Your task to perform on an android device: Open Amazon Image 0: 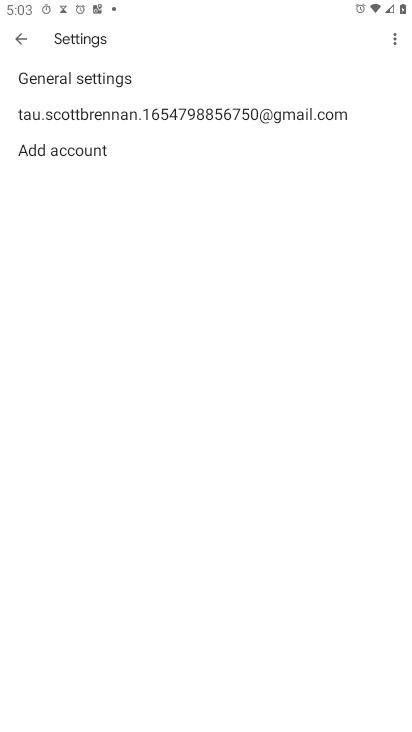
Step 0: press home button
Your task to perform on an android device: Open Amazon Image 1: 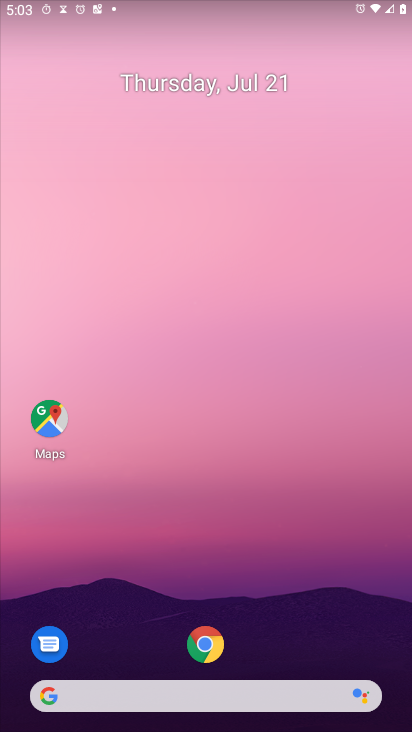
Step 1: click (43, 693)
Your task to perform on an android device: Open Amazon Image 2: 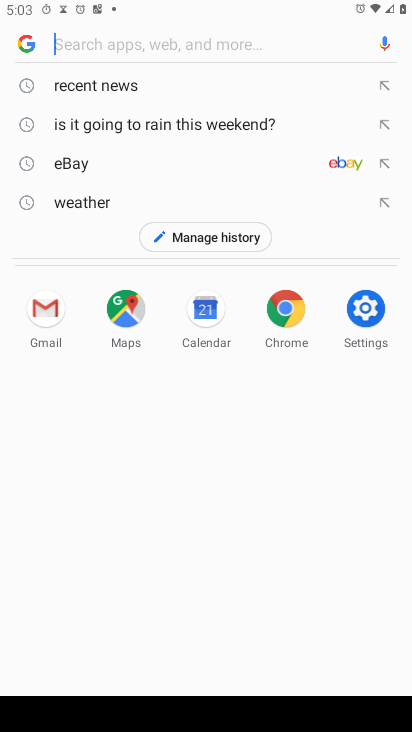
Step 2: type "Amazon"
Your task to perform on an android device: Open Amazon Image 3: 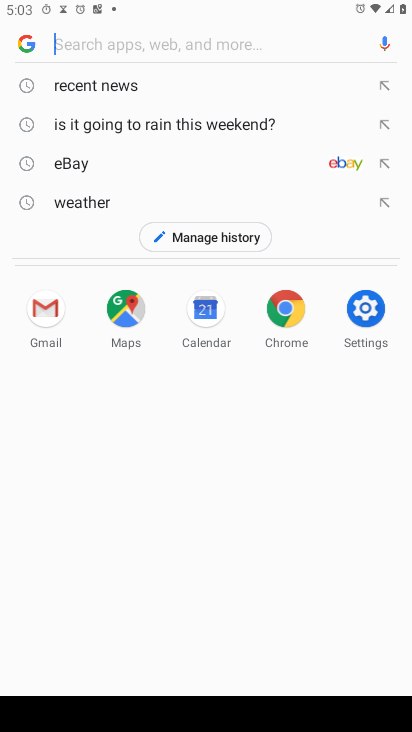
Step 3: click (82, 45)
Your task to perform on an android device: Open Amazon Image 4: 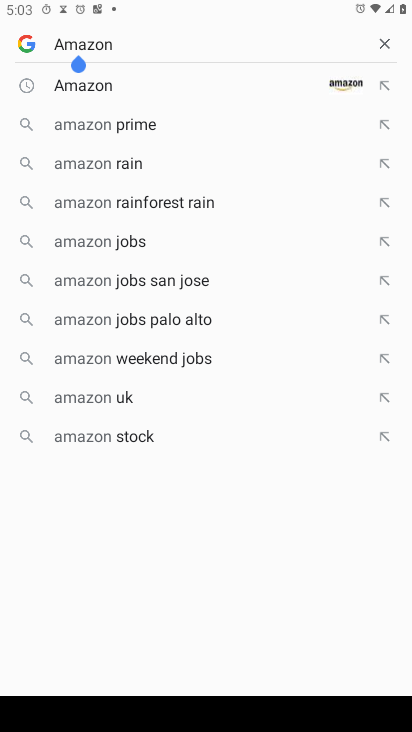
Step 4: press enter
Your task to perform on an android device: Open Amazon Image 5: 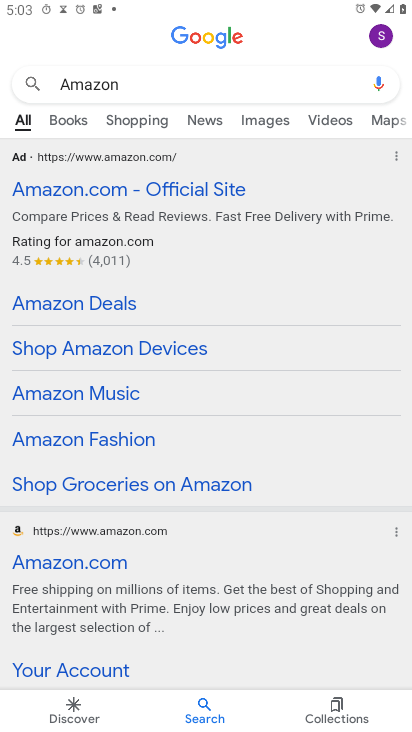
Step 5: click (71, 564)
Your task to perform on an android device: Open Amazon Image 6: 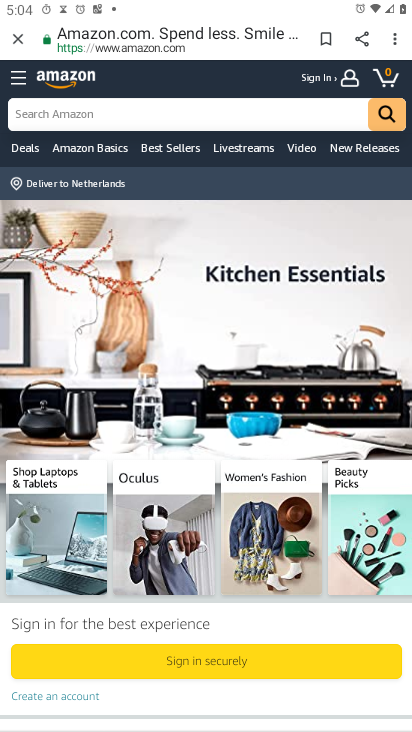
Step 6: task complete